Your task to perform on an android device: Find coffee shops on Maps Image 0: 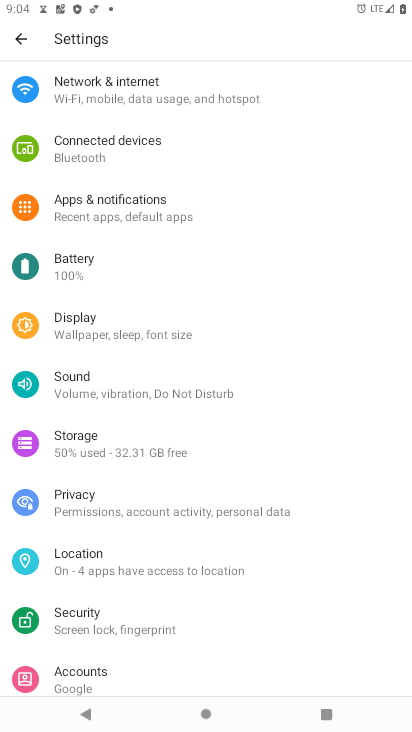
Step 0: press home button
Your task to perform on an android device: Find coffee shops on Maps Image 1: 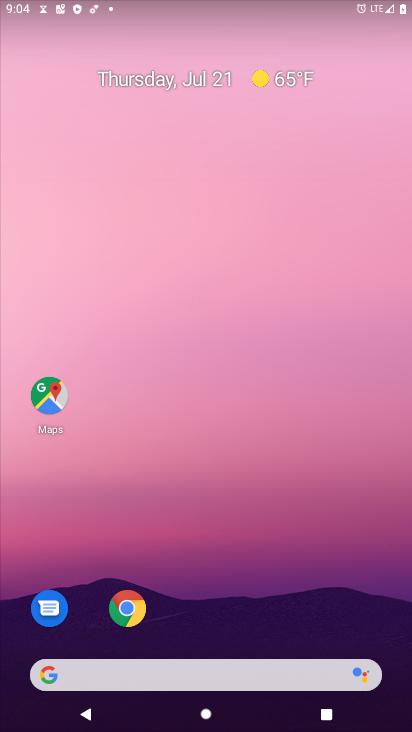
Step 1: click (46, 394)
Your task to perform on an android device: Find coffee shops on Maps Image 2: 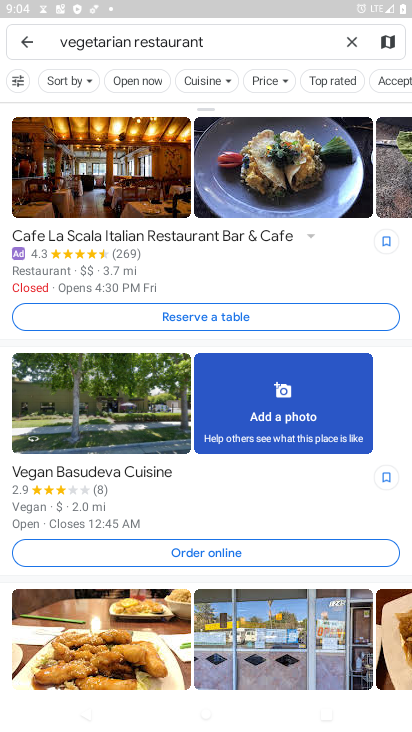
Step 2: click (352, 42)
Your task to perform on an android device: Find coffee shops on Maps Image 3: 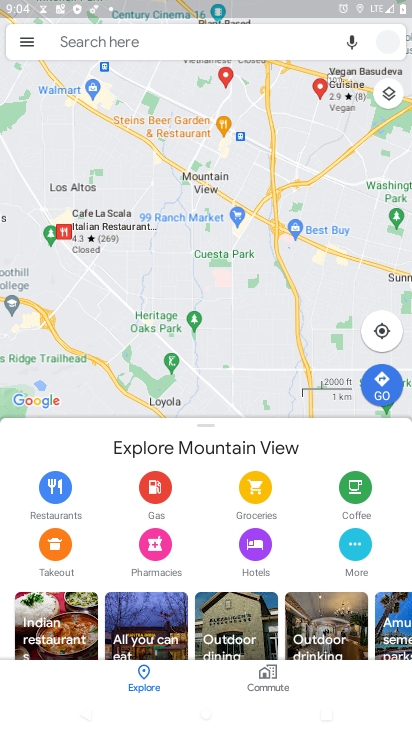
Step 3: click (250, 35)
Your task to perform on an android device: Find coffee shops on Maps Image 4: 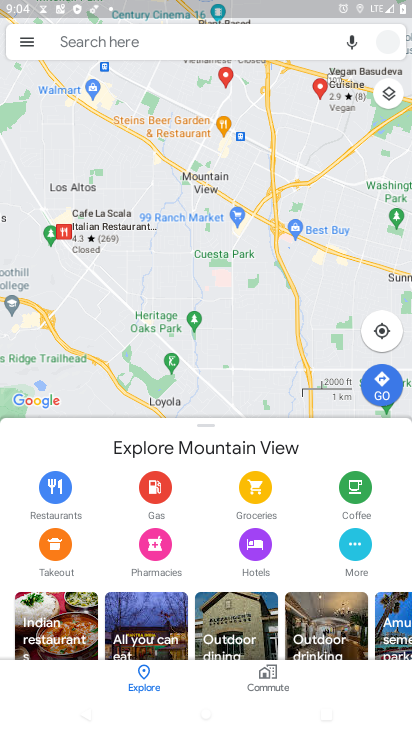
Step 4: click (250, 35)
Your task to perform on an android device: Find coffee shops on Maps Image 5: 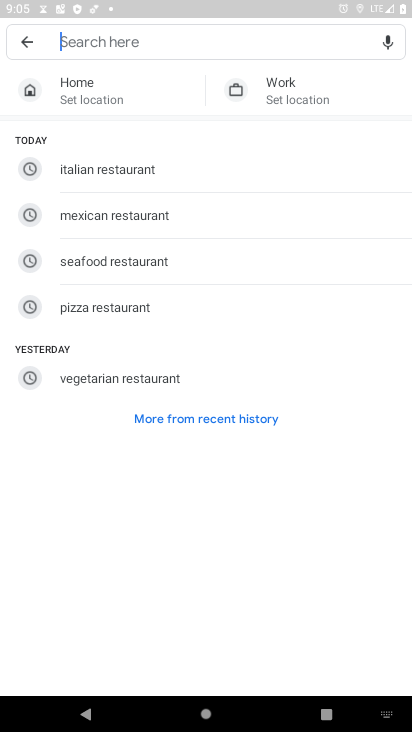
Step 5: type "coffee shops"
Your task to perform on an android device: Find coffee shops on Maps Image 6: 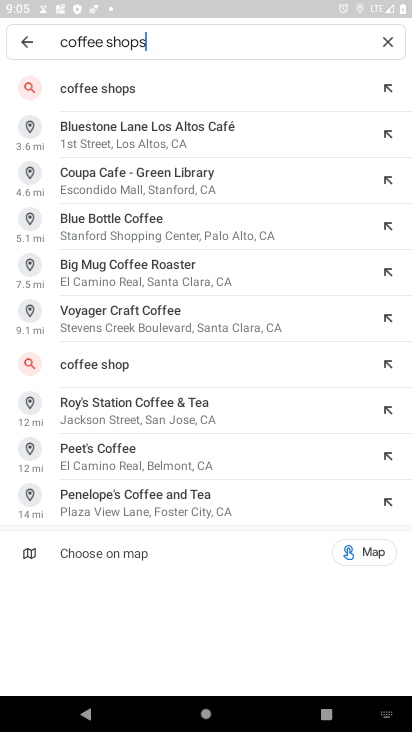
Step 6: click (111, 85)
Your task to perform on an android device: Find coffee shops on Maps Image 7: 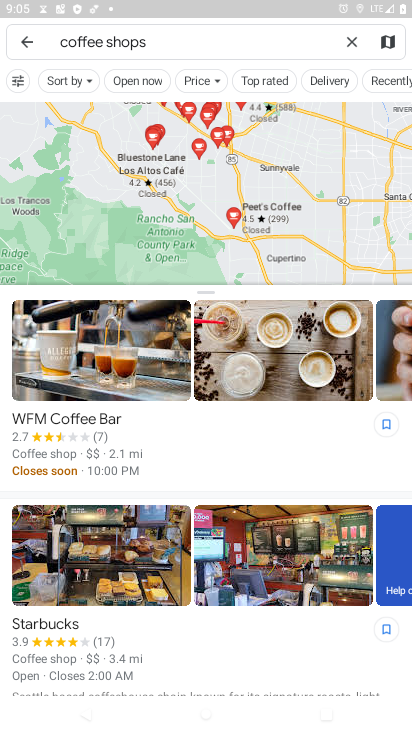
Step 7: task complete